Your task to perform on an android device: Open the web browser Image 0: 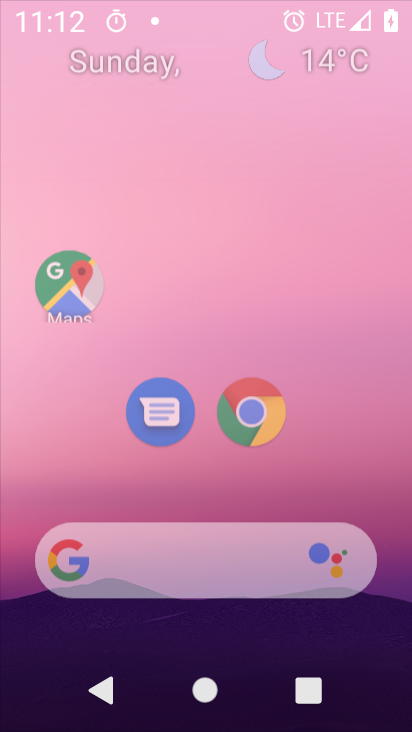
Step 0: click (392, 92)
Your task to perform on an android device: Open the web browser Image 1: 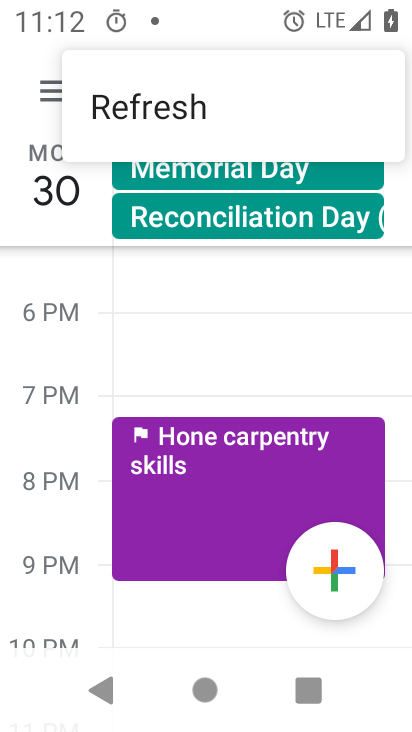
Step 1: drag from (218, 550) to (241, 99)
Your task to perform on an android device: Open the web browser Image 2: 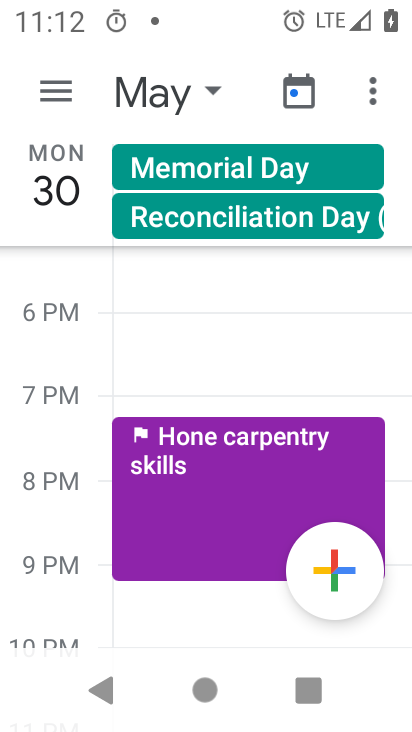
Step 2: drag from (258, 608) to (389, 109)
Your task to perform on an android device: Open the web browser Image 3: 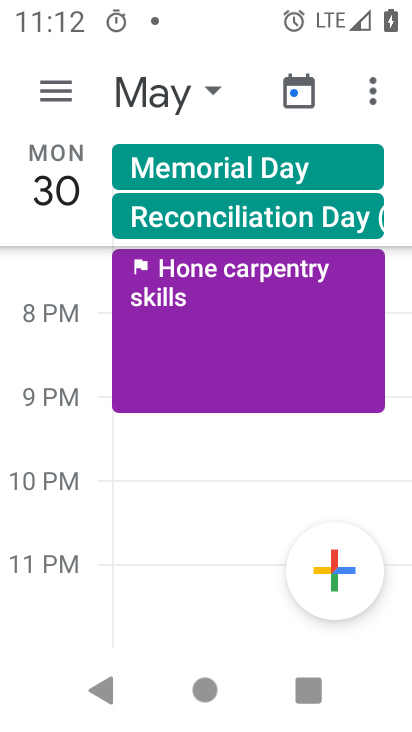
Step 3: press home button
Your task to perform on an android device: Open the web browser Image 4: 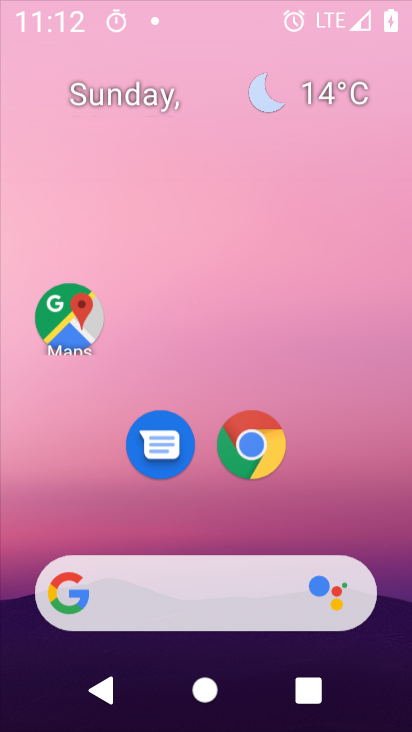
Step 4: drag from (172, 645) to (249, 116)
Your task to perform on an android device: Open the web browser Image 5: 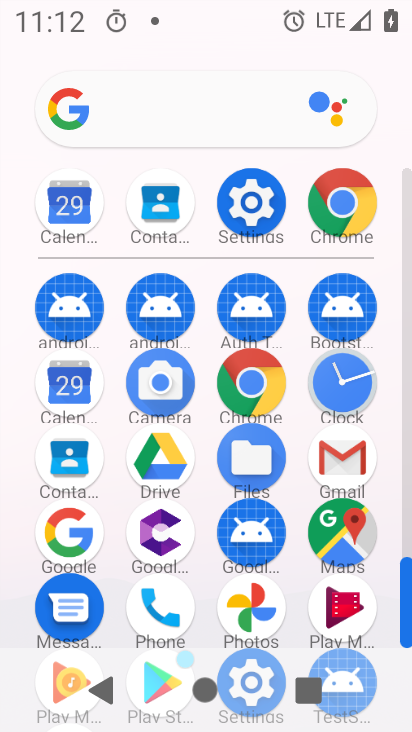
Step 5: click (242, 379)
Your task to perform on an android device: Open the web browser Image 6: 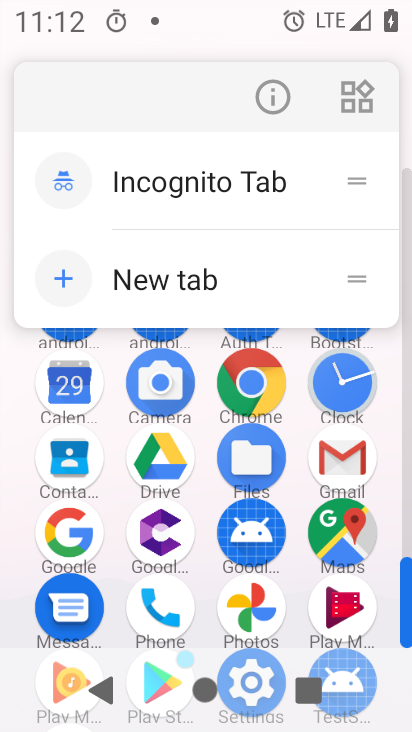
Step 6: click (284, 101)
Your task to perform on an android device: Open the web browser Image 7: 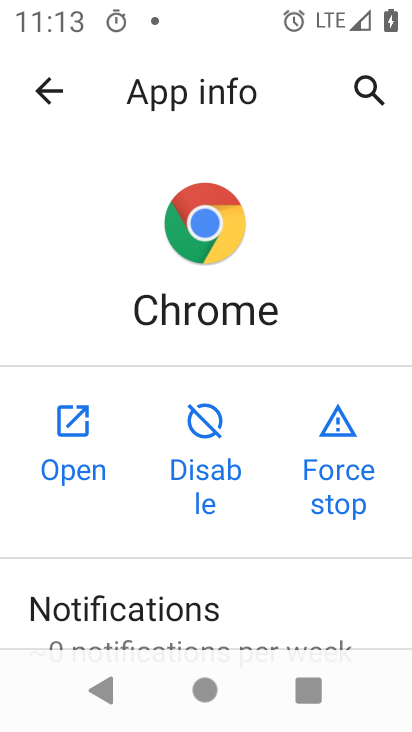
Step 7: click (74, 427)
Your task to perform on an android device: Open the web browser Image 8: 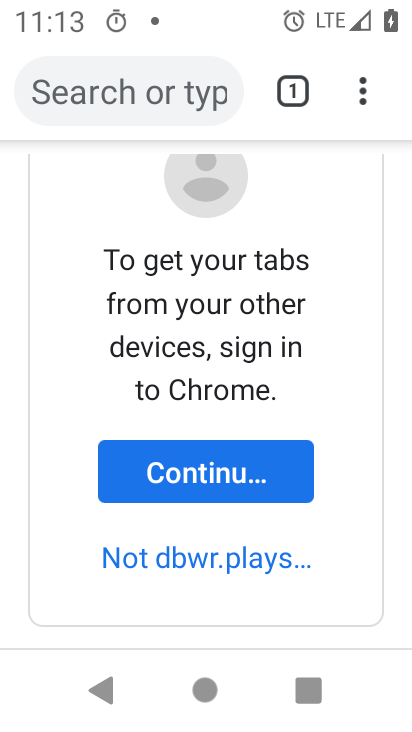
Step 8: task complete